Your task to perform on an android device: change timer sound Image 0: 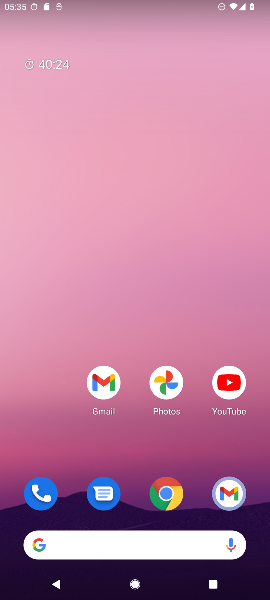
Step 0: drag from (57, 458) to (79, 78)
Your task to perform on an android device: change timer sound Image 1: 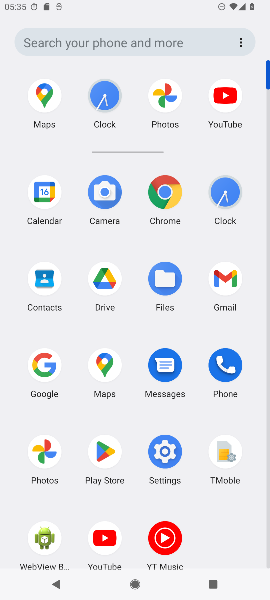
Step 1: click (232, 193)
Your task to perform on an android device: change timer sound Image 2: 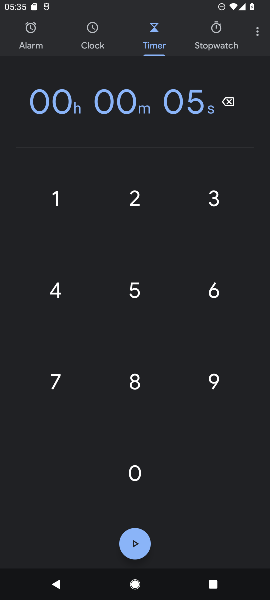
Step 2: click (259, 31)
Your task to perform on an android device: change timer sound Image 3: 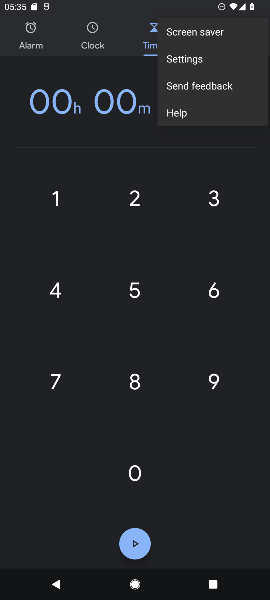
Step 3: click (193, 61)
Your task to perform on an android device: change timer sound Image 4: 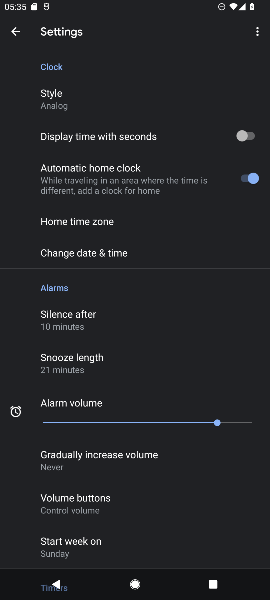
Step 4: drag from (216, 317) to (214, 202)
Your task to perform on an android device: change timer sound Image 5: 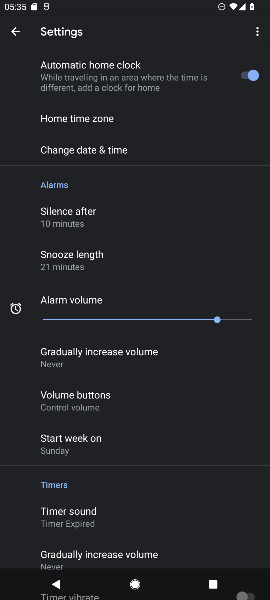
Step 5: drag from (208, 384) to (211, 248)
Your task to perform on an android device: change timer sound Image 6: 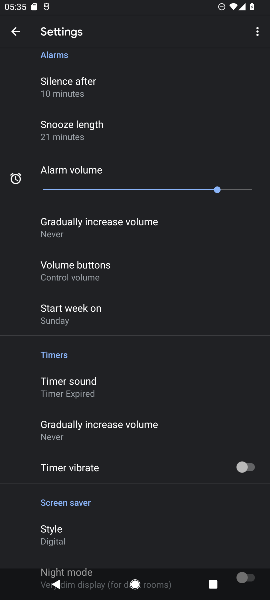
Step 6: drag from (211, 358) to (215, 262)
Your task to perform on an android device: change timer sound Image 7: 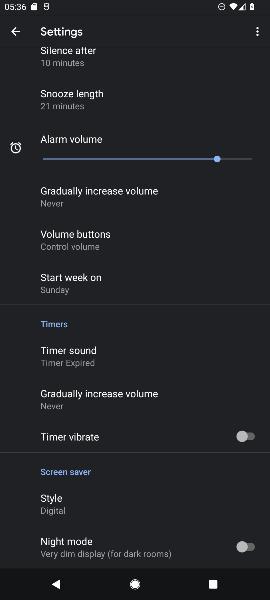
Step 7: drag from (194, 454) to (194, 321)
Your task to perform on an android device: change timer sound Image 8: 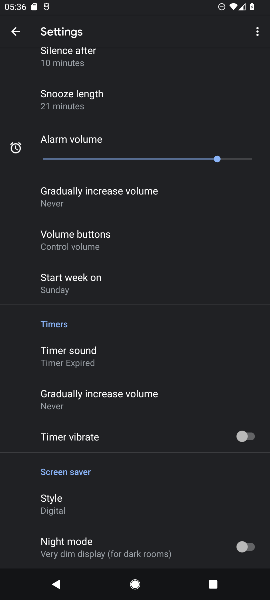
Step 8: drag from (192, 255) to (199, 372)
Your task to perform on an android device: change timer sound Image 9: 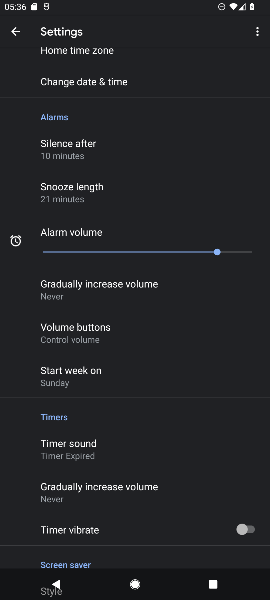
Step 9: click (114, 448)
Your task to perform on an android device: change timer sound Image 10: 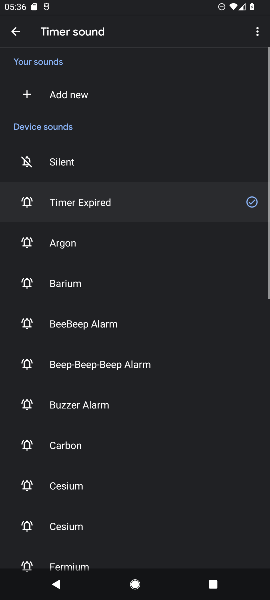
Step 10: drag from (186, 426) to (189, 296)
Your task to perform on an android device: change timer sound Image 11: 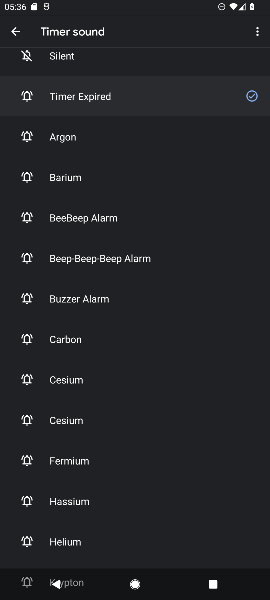
Step 11: drag from (178, 421) to (192, 277)
Your task to perform on an android device: change timer sound Image 12: 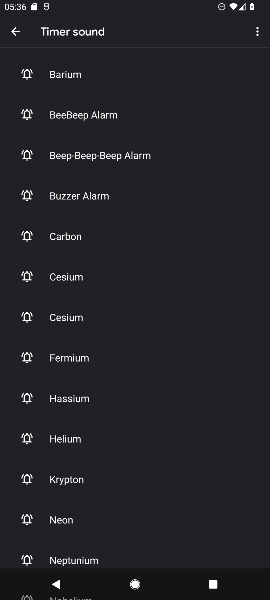
Step 12: drag from (174, 445) to (188, 285)
Your task to perform on an android device: change timer sound Image 13: 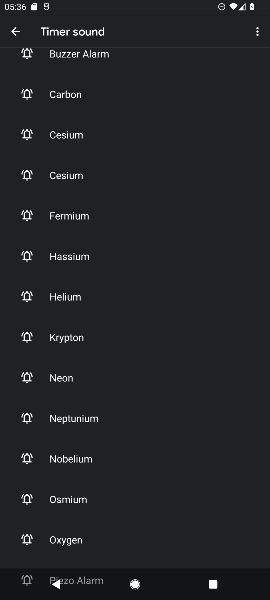
Step 13: drag from (180, 455) to (187, 286)
Your task to perform on an android device: change timer sound Image 14: 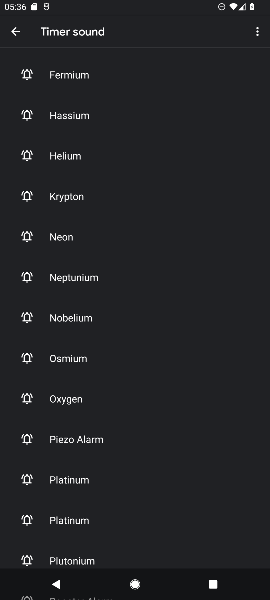
Step 14: click (114, 440)
Your task to perform on an android device: change timer sound Image 15: 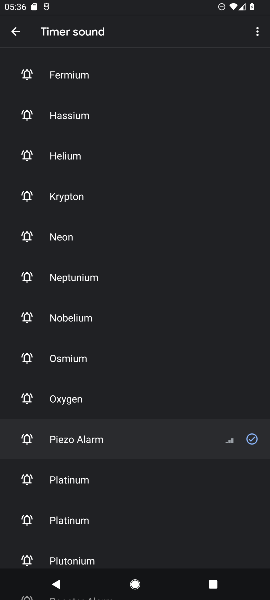
Step 15: task complete